Your task to perform on an android device: snooze an email in the gmail app Image 0: 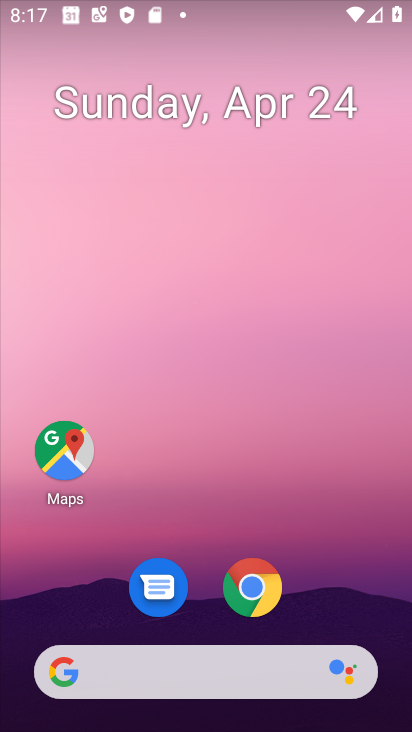
Step 0: drag from (334, 465) to (314, 5)
Your task to perform on an android device: snooze an email in the gmail app Image 1: 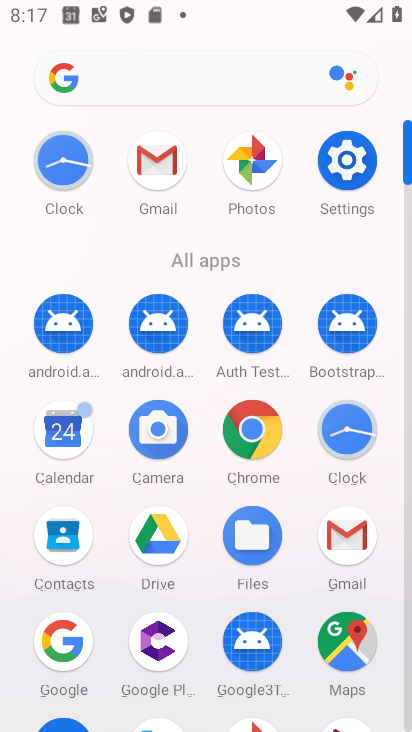
Step 1: click (157, 184)
Your task to perform on an android device: snooze an email in the gmail app Image 2: 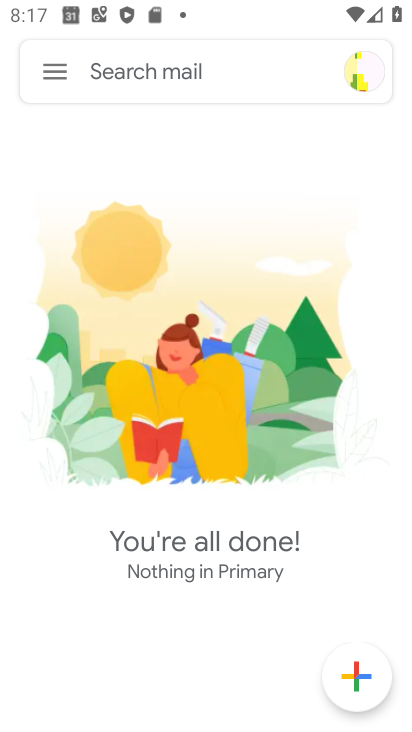
Step 2: click (39, 81)
Your task to perform on an android device: snooze an email in the gmail app Image 3: 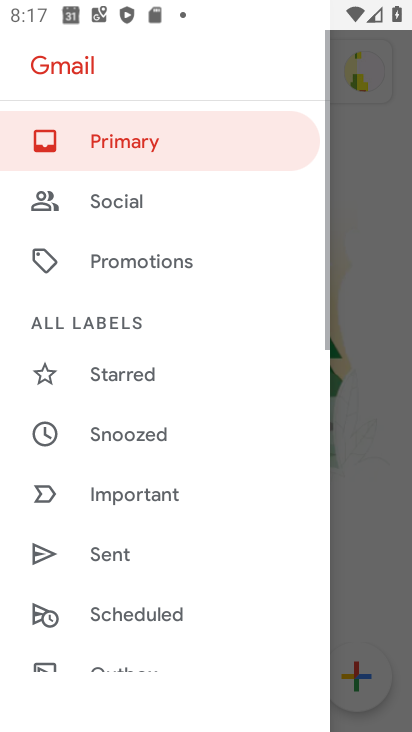
Step 3: drag from (150, 571) to (162, 193)
Your task to perform on an android device: snooze an email in the gmail app Image 4: 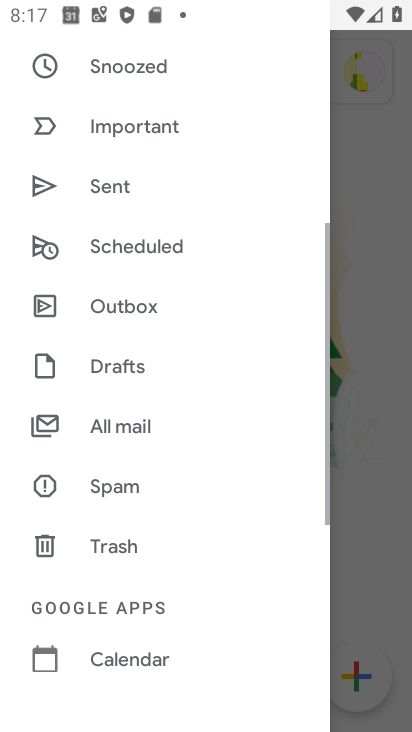
Step 4: click (137, 421)
Your task to perform on an android device: snooze an email in the gmail app Image 5: 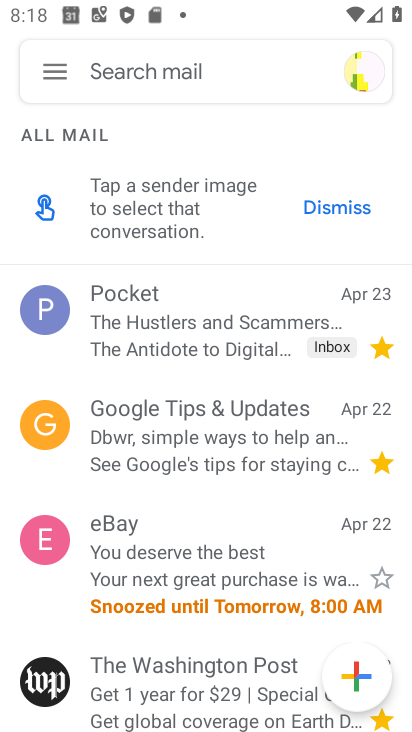
Step 5: click (199, 441)
Your task to perform on an android device: snooze an email in the gmail app Image 6: 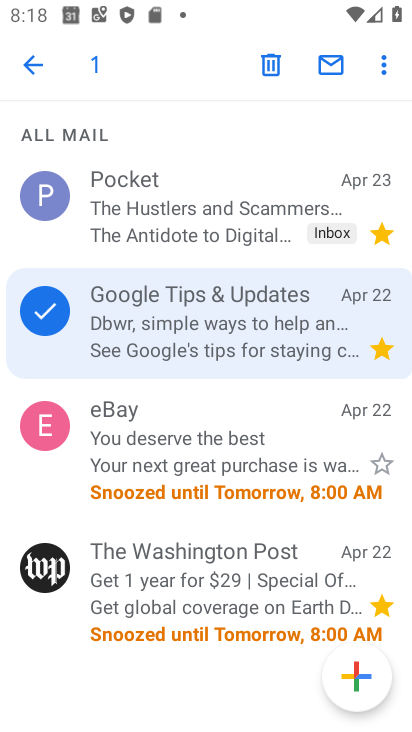
Step 6: click (383, 67)
Your task to perform on an android device: snooze an email in the gmail app Image 7: 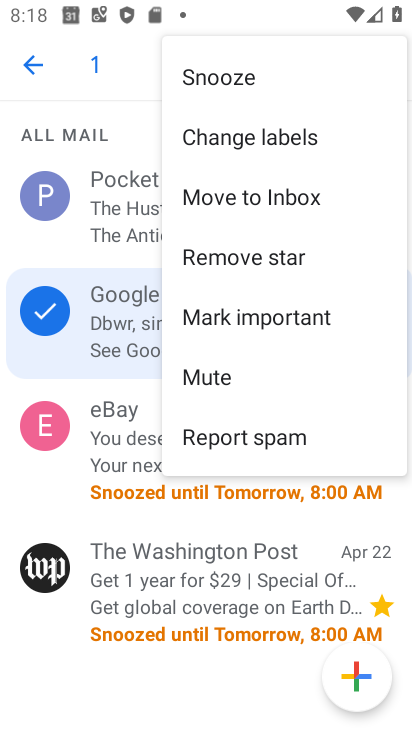
Step 7: click (232, 81)
Your task to perform on an android device: snooze an email in the gmail app Image 8: 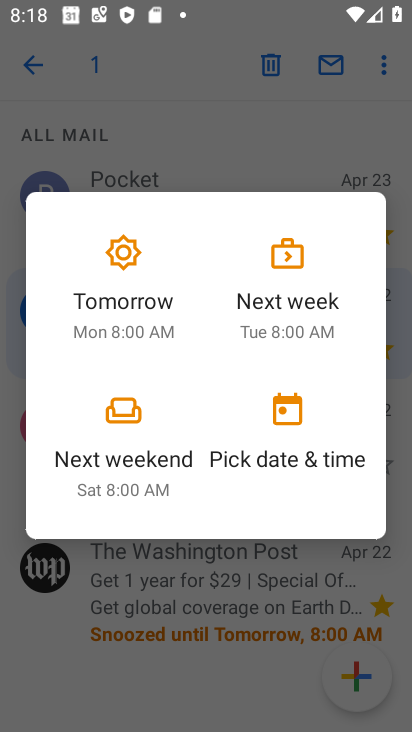
Step 8: click (110, 444)
Your task to perform on an android device: snooze an email in the gmail app Image 9: 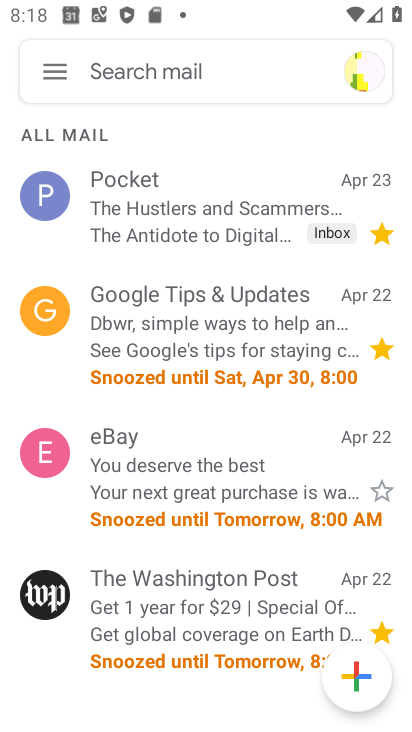
Step 9: task complete